Your task to perform on an android device: Open eBay Image 0: 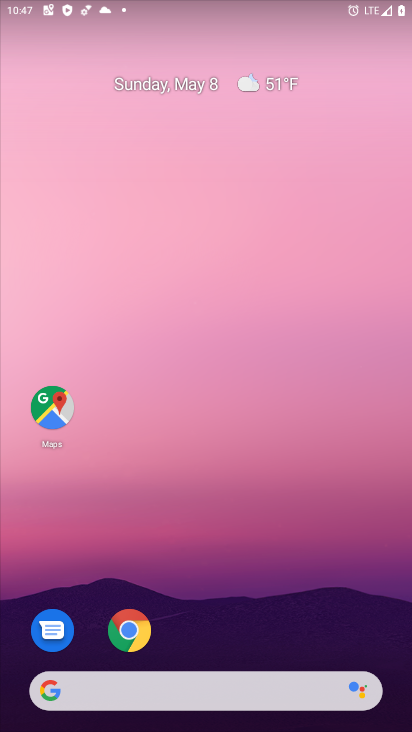
Step 0: drag from (337, 603) to (180, 66)
Your task to perform on an android device: Open eBay Image 1: 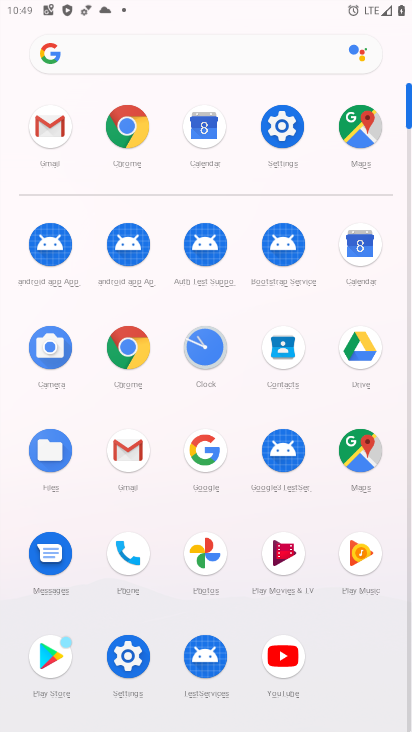
Step 1: click (119, 346)
Your task to perform on an android device: Open eBay Image 2: 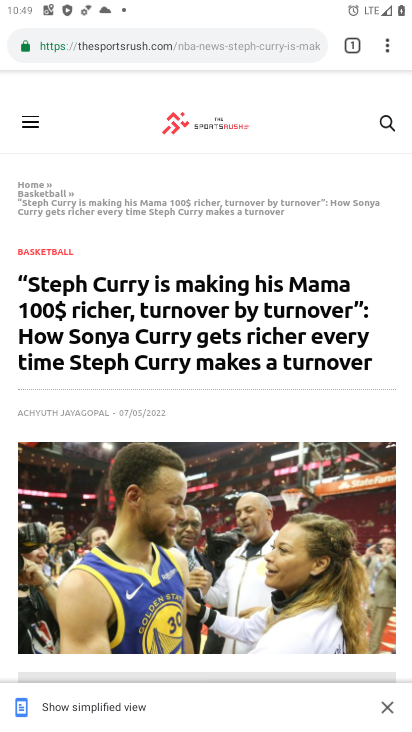
Step 2: press back button
Your task to perform on an android device: Open eBay Image 3: 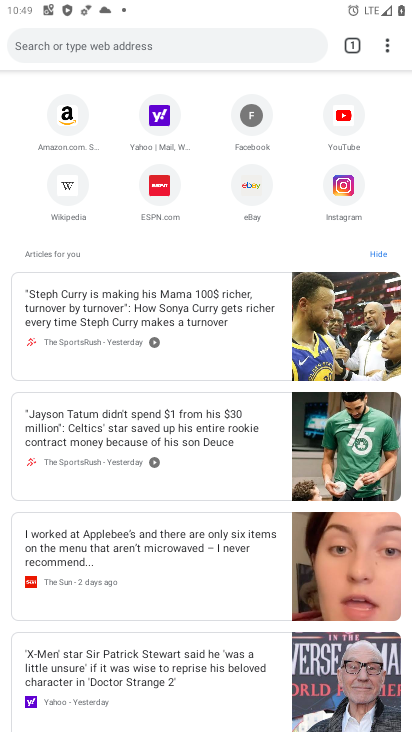
Step 3: click (241, 177)
Your task to perform on an android device: Open eBay Image 4: 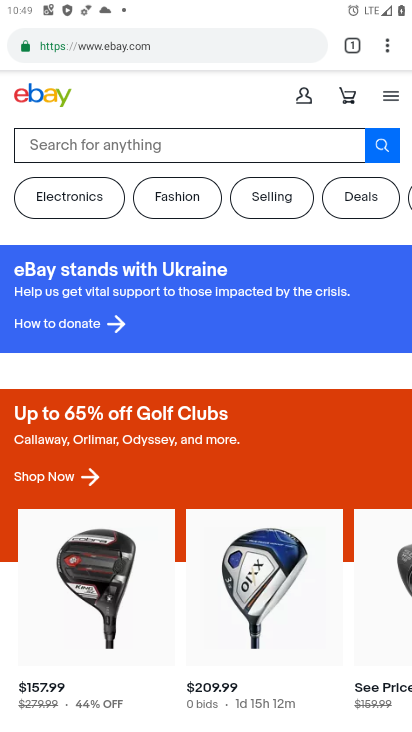
Step 4: task complete